Your task to perform on an android device: check android version Image 0: 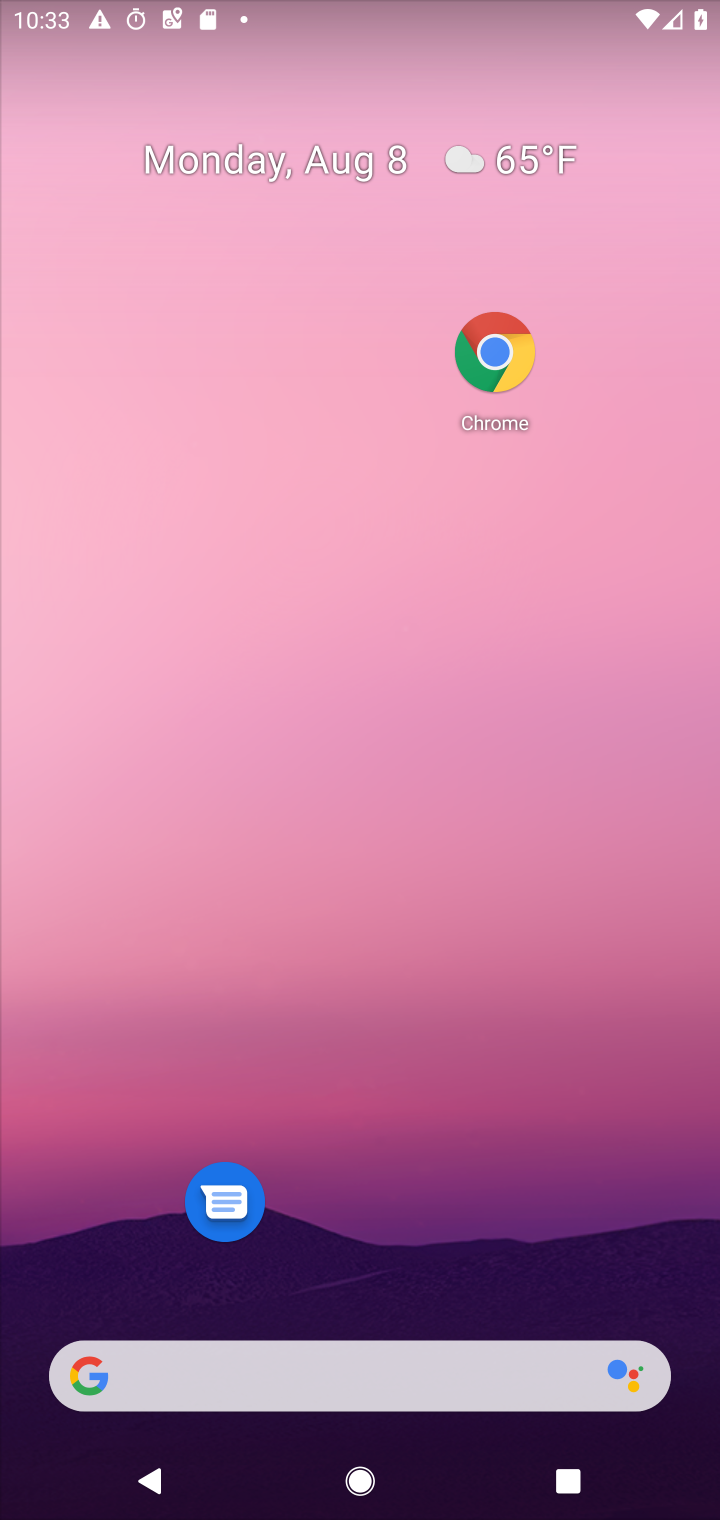
Step 0: drag from (458, 1053) to (524, 0)
Your task to perform on an android device: check android version Image 1: 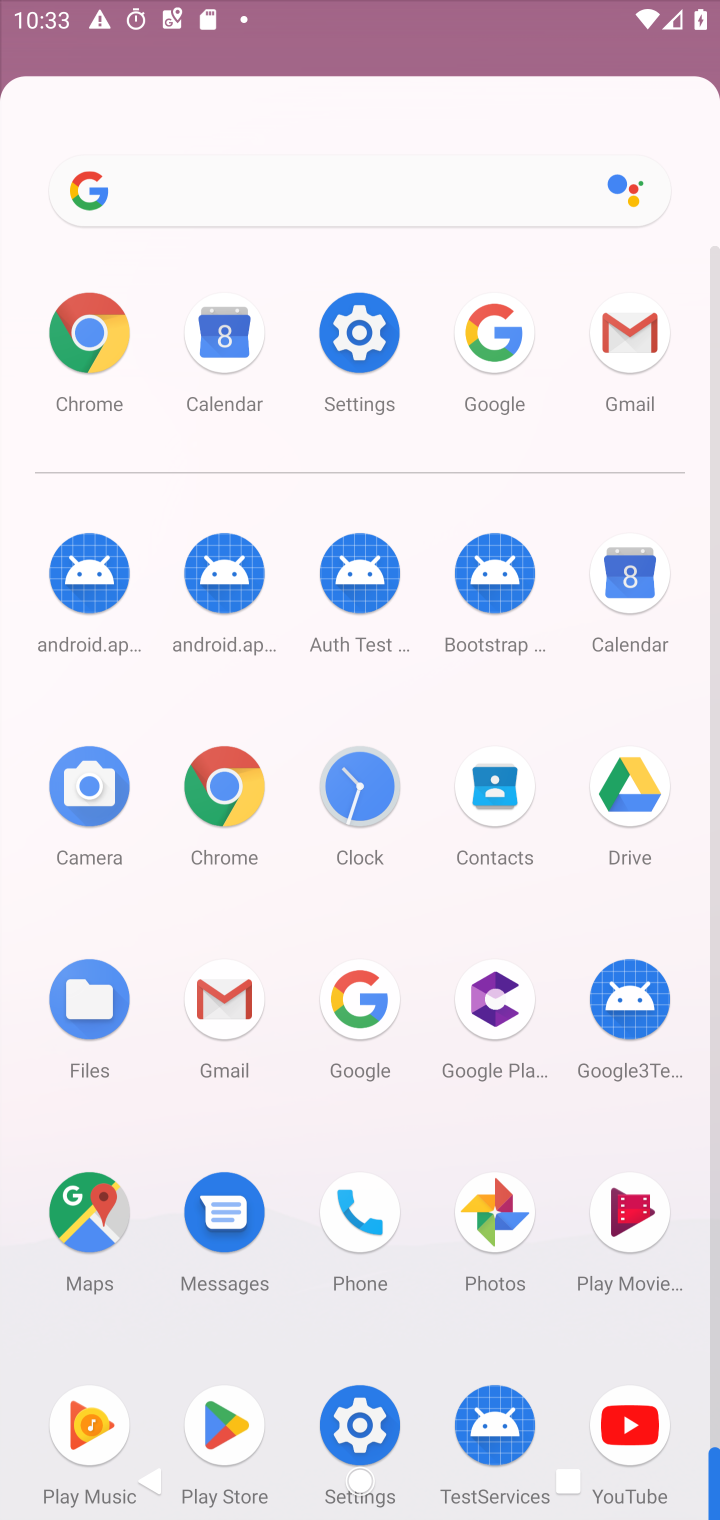
Step 1: drag from (406, 1016) to (488, 165)
Your task to perform on an android device: check android version Image 2: 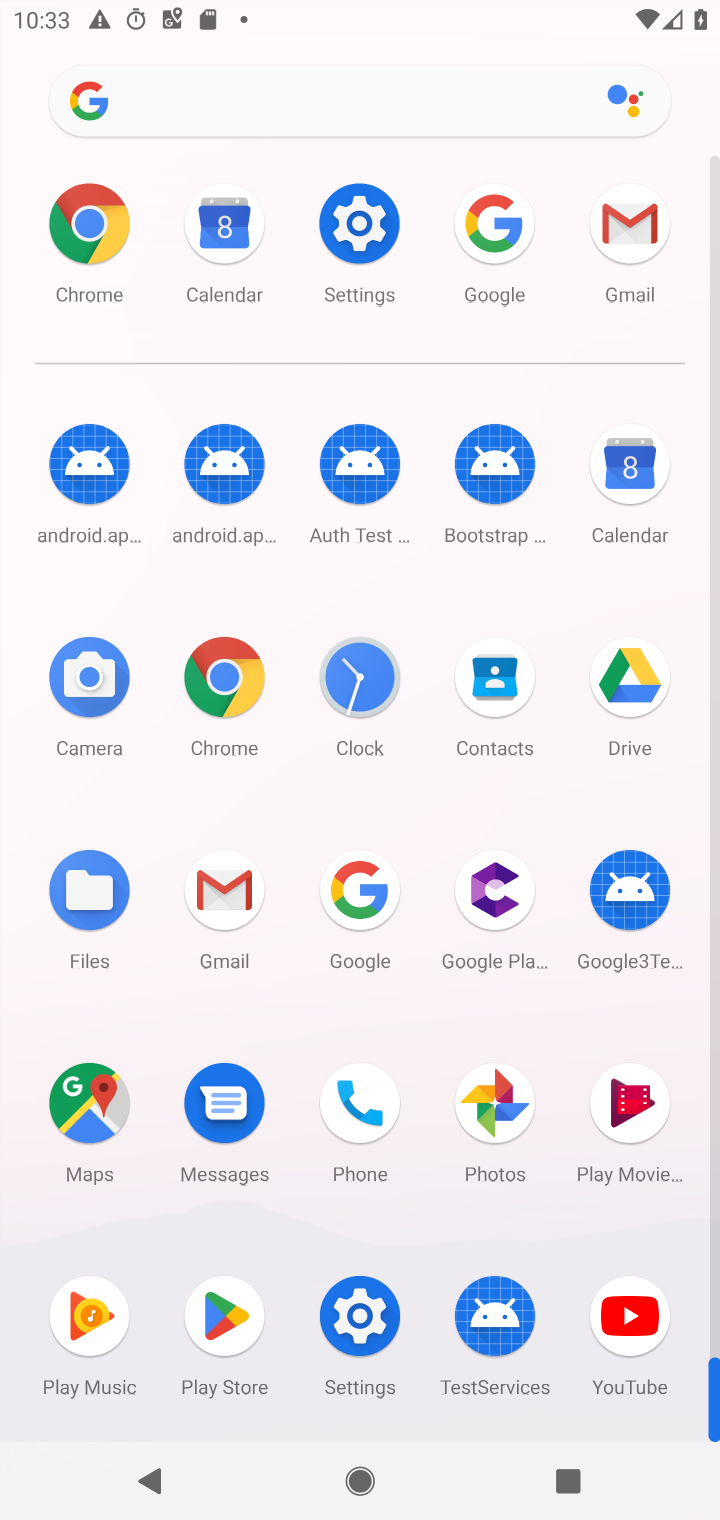
Step 2: click (378, 252)
Your task to perform on an android device: check android version Image 3: 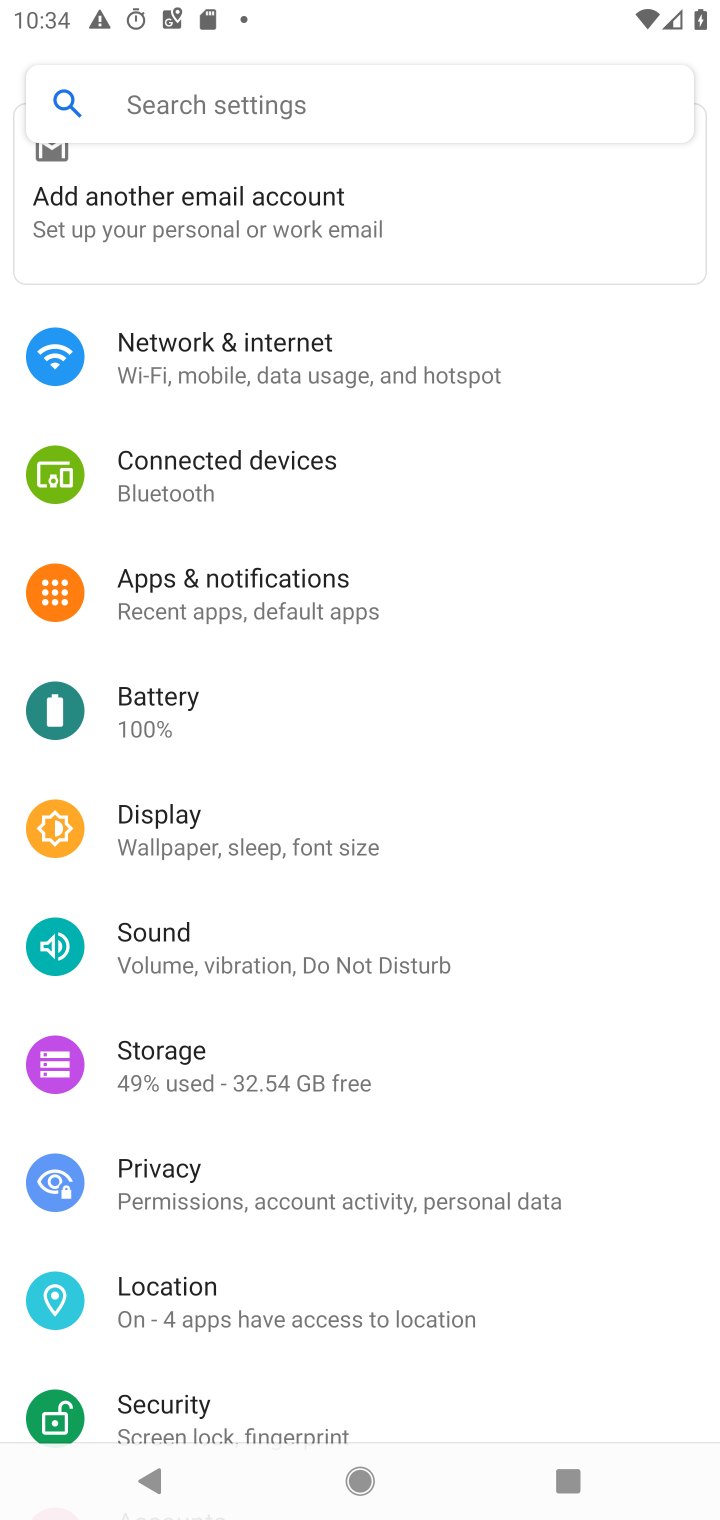
Step 3: drag from (343, 1076) to (516, 121)
Your task to perform on an android device: check android version Image 4: 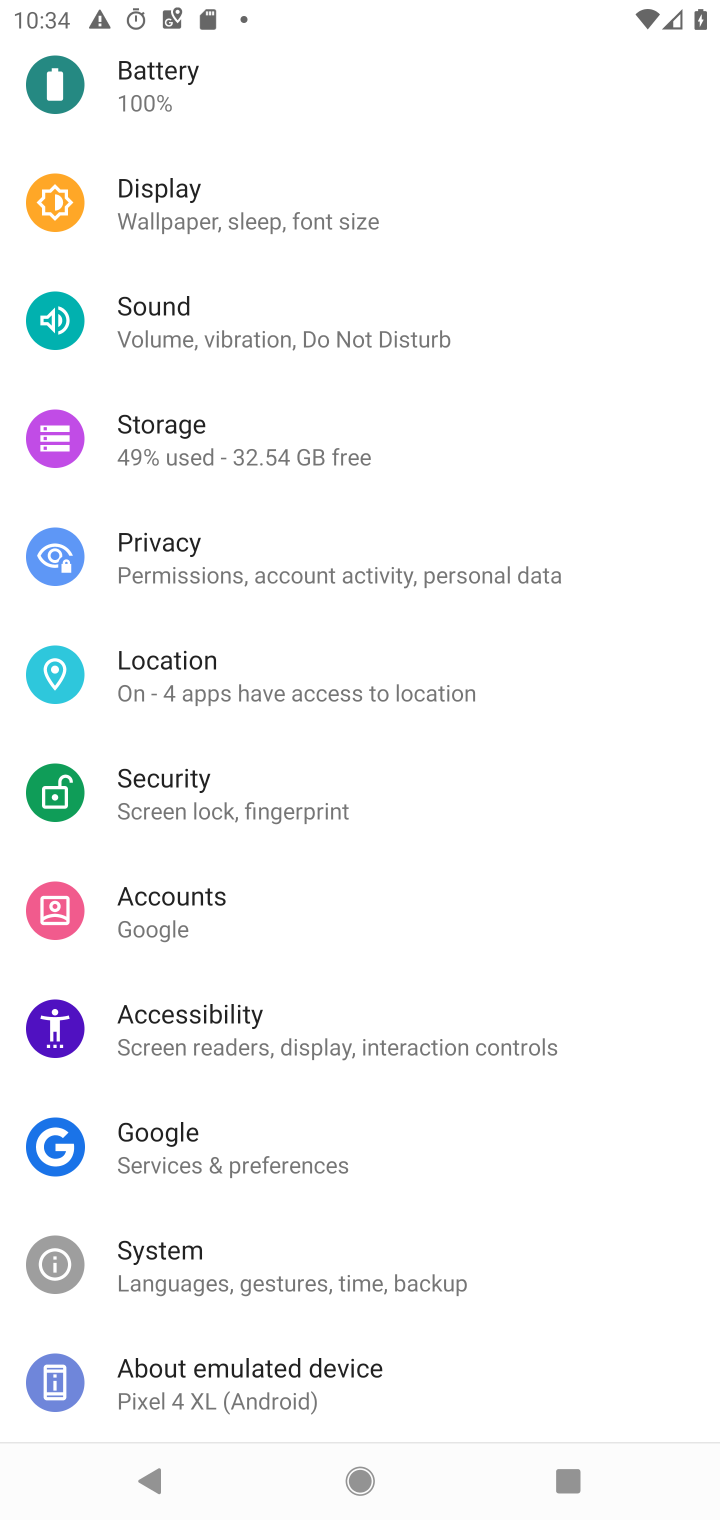
Step 4: drag from (382, 871) to (582, 68)
Your task to perform on an android device: check android version Image 5: 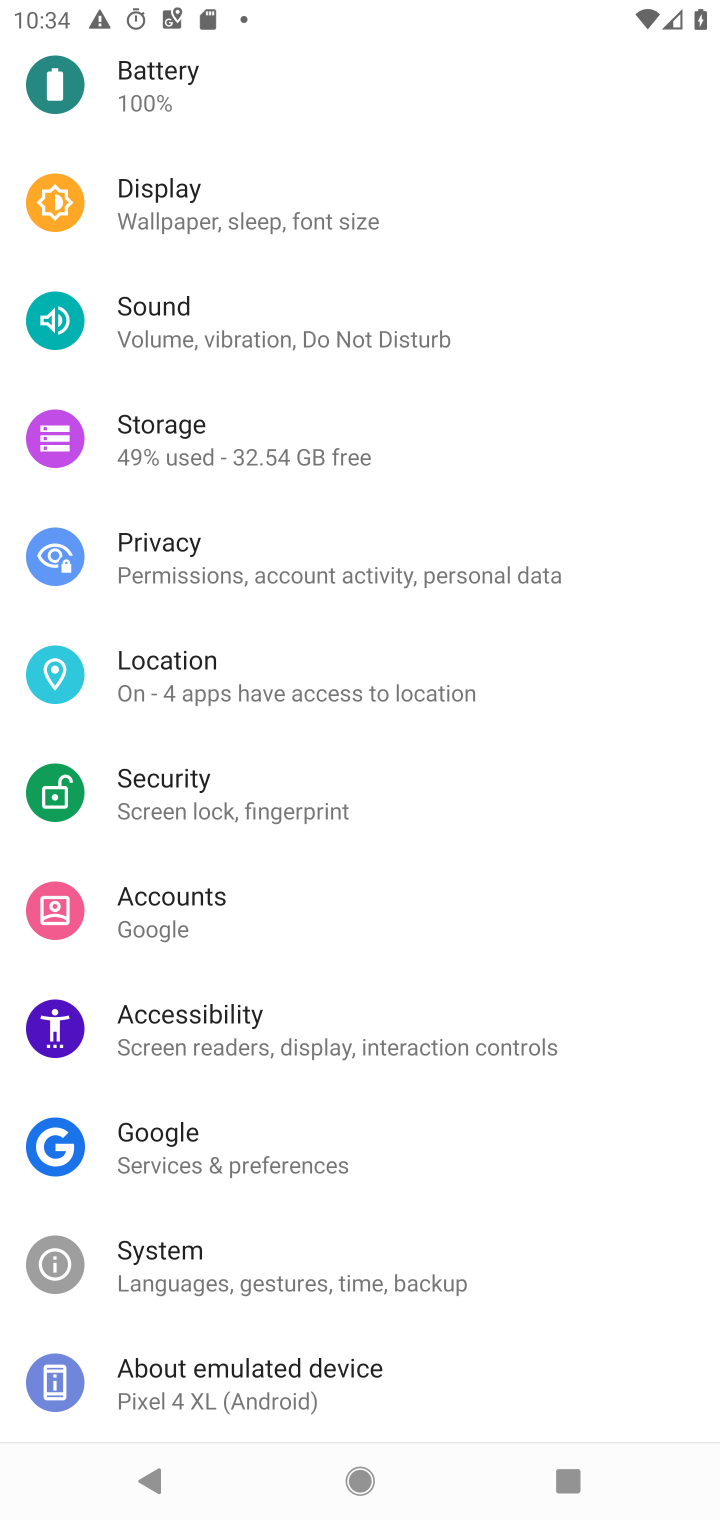
Step 5: click (308, 1370)
Your task to perform on an android device: check android version Image 6: 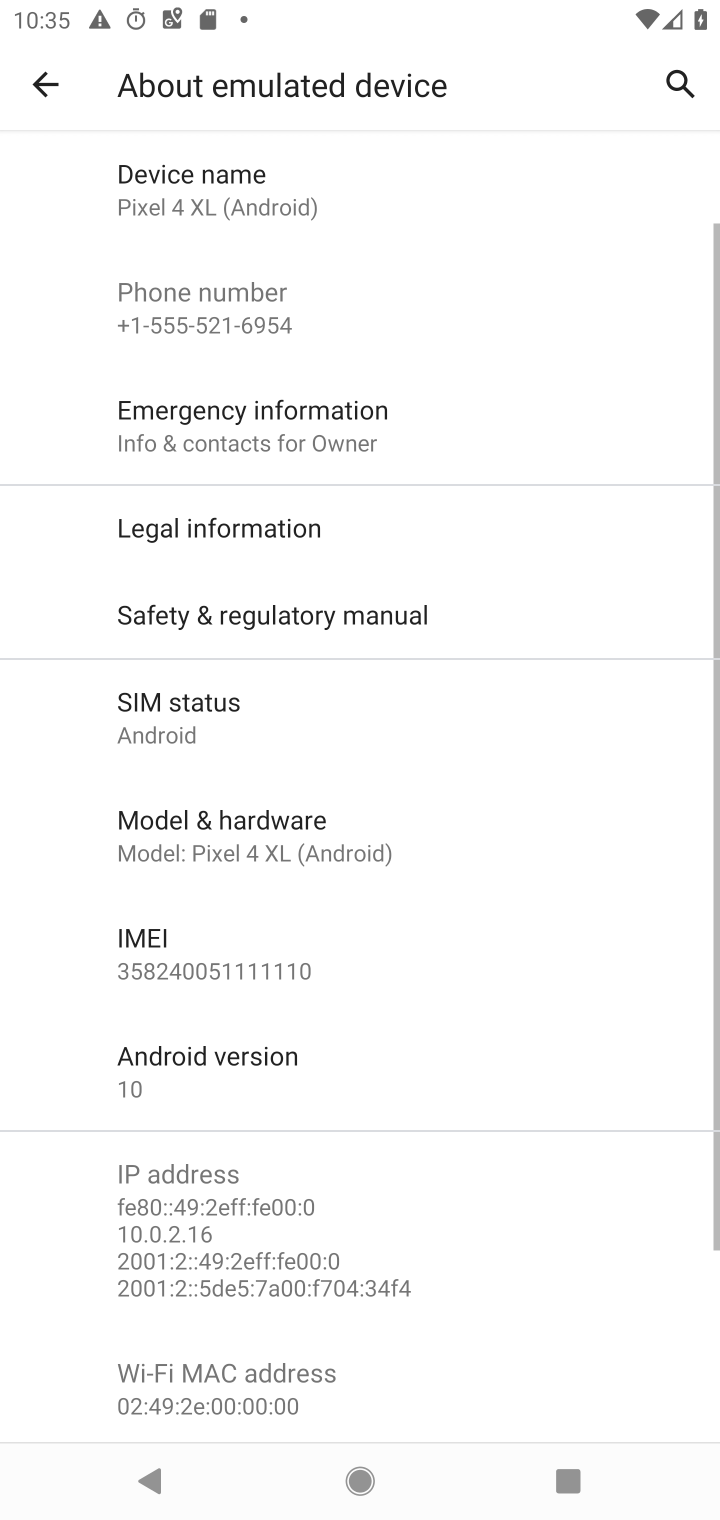
Step 6: task complete